Your task to perform on an android device: turn on location history Image 0: 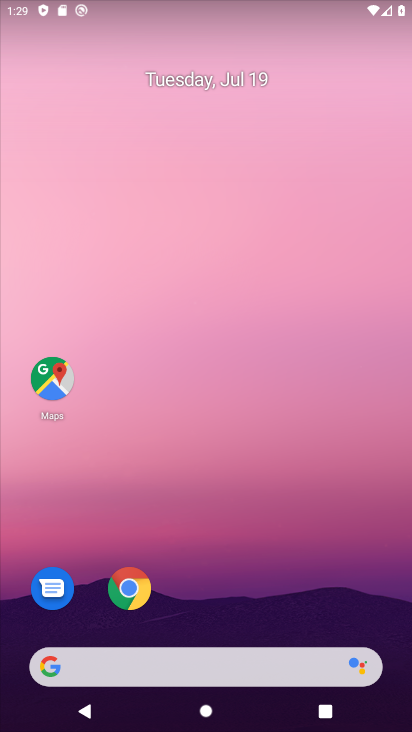
Step 0: click (47, 376)
Your task to perform on an android device: turn on location history Image 1: 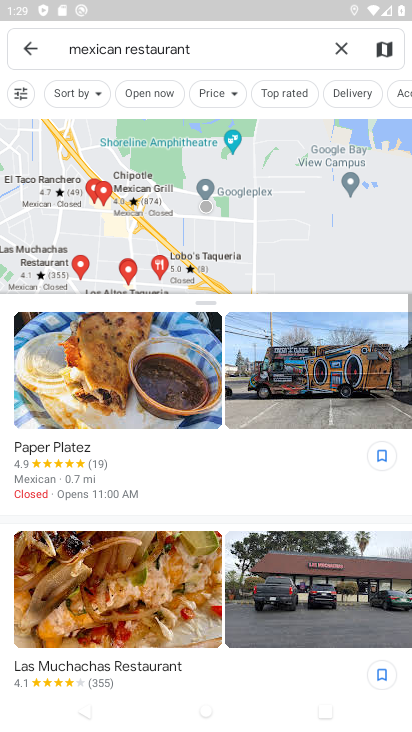
Step 1: click (29, 49)
Your task to perform on an android device: turn on location history Image 2: 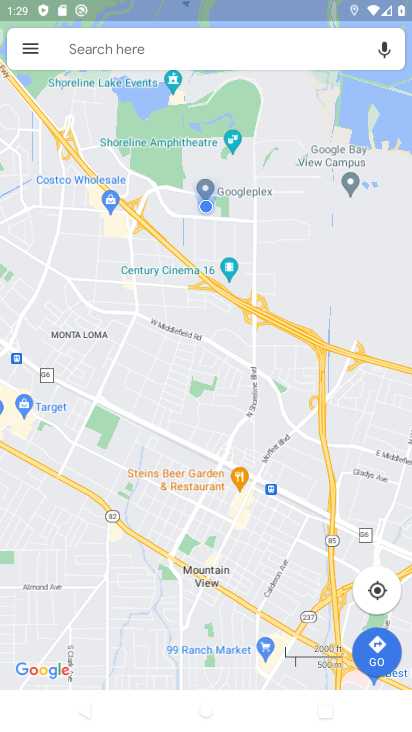
Step 2: click (29, 49)
Your task to perform on an android device: turn on location history Image 3: 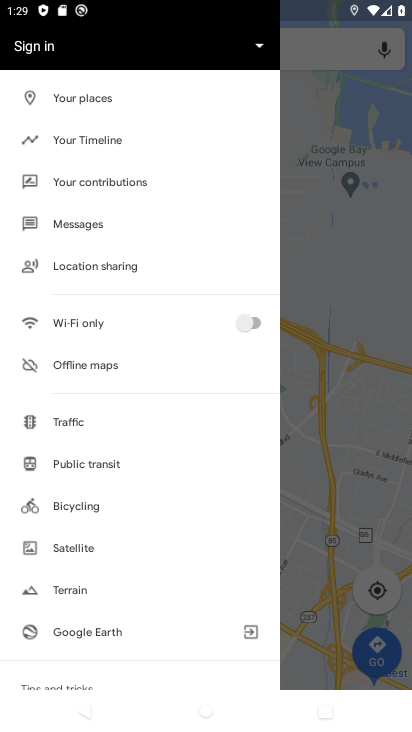
Step 3: click (87, 136)
Your task to perform on an android device: turn on location history Image 4: 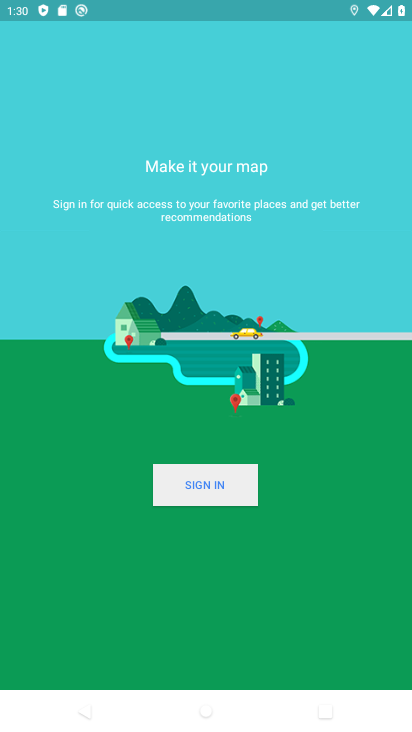
Step 4: click (217, 475)
Your task to perform on an android device: turn on location history Image 5: 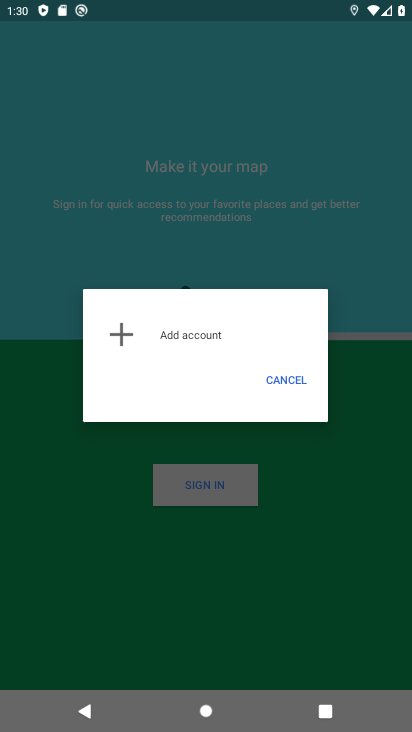
Step 5: task complete